Your task to perform on an android device: turn on location history Image 0: 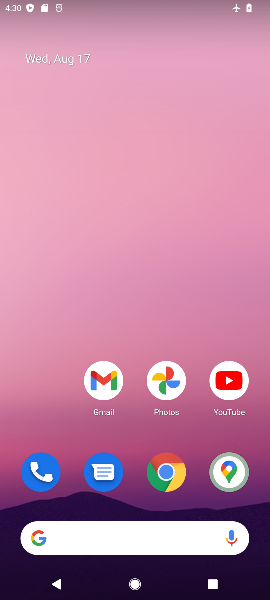
Step 0: drag from (138, 443) to (158, 103)
Your task to perform on an android device: turn on location history Image 1: 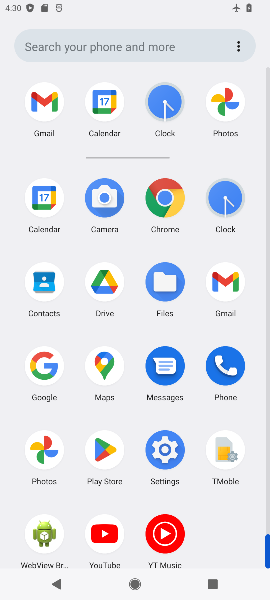
Step 1: click (159, 449)
Your task to perform on an android device: turn on location history Image 2: 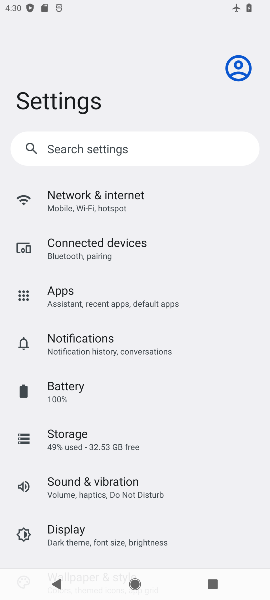
Step 2: drag from (141, 484) to (141, 167)
Your task to perform on an android device: turn on location history Image 3: 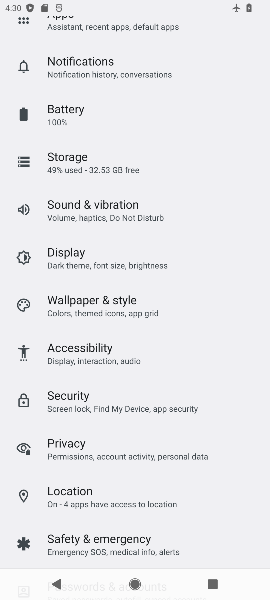
Step 3: click (107, 494)
Your task to perform on an android device: turn on location history Image 4: 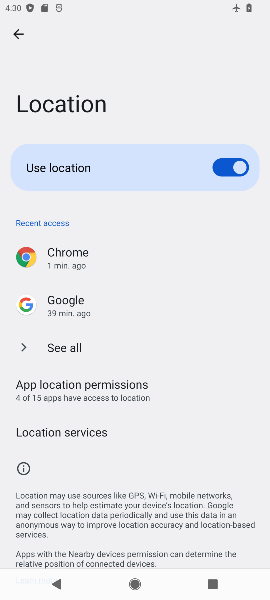
Step 4: drag from (104, 494) to (107, 257)
Your task to perform on an android device: turn on location history Image 5: 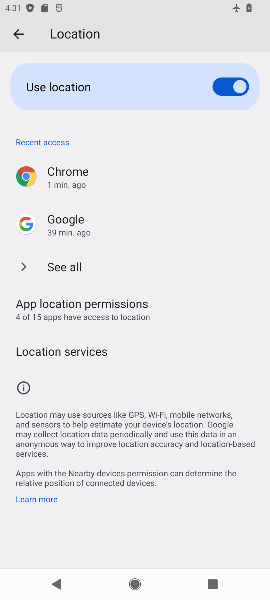
Step 5: click (105, 364)
Your task to perform on an android device: turn on location history Image 6: 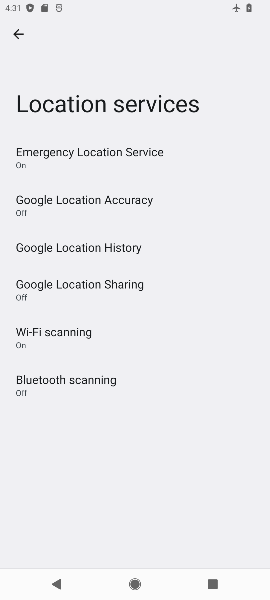
Step 6: click (143, 251)
Your task to perform on an android device: turn on location history Image 7: 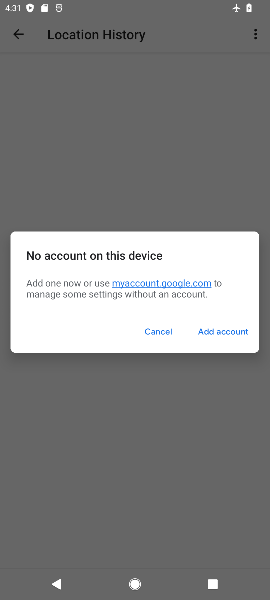
Step 7: click (157, 331)
Your task to perform on an android device: turn on location history Image 8: 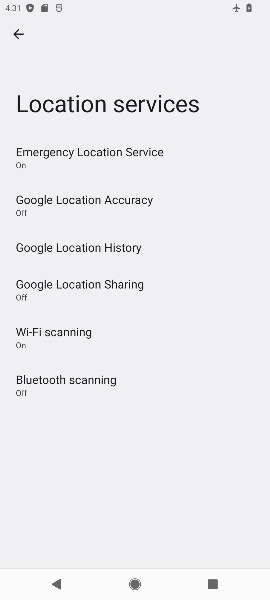
Step 8: click (130, 248)
Your task to perform on an android device: turn on location history Image 9: 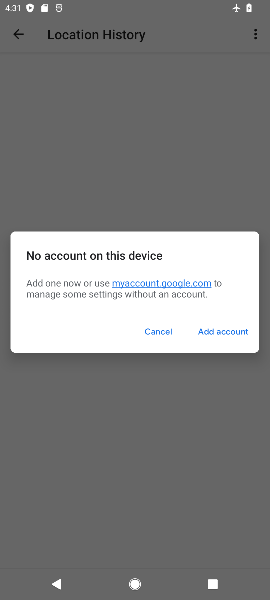
Step 9: click (151, 336)
Your task to perform on an android device: turn on location history Image 10: 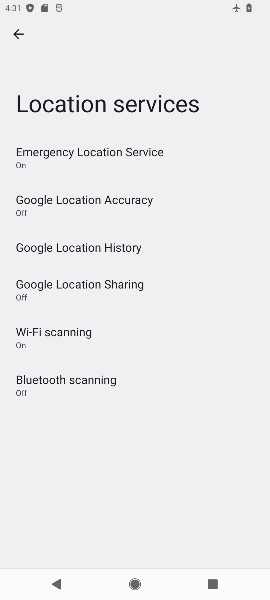
Step 10: click (100, 248)
Your task to perform on an android device: turn on location history Image 11: 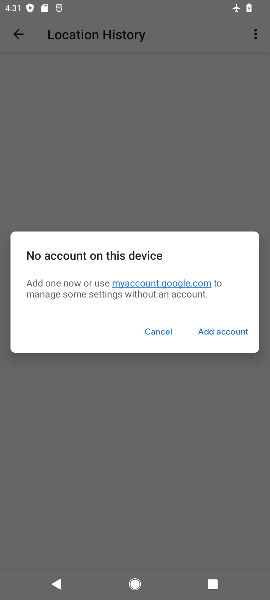
Step 11: task complete